Your task to perform on an android device: When is my next appointment? Image 0: 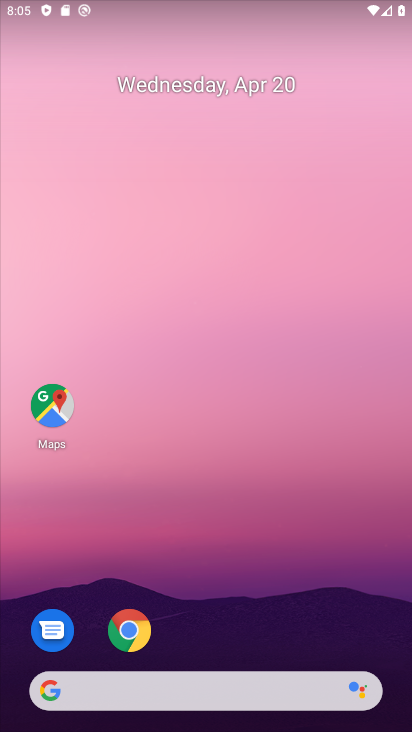
Step 0: press home button
Your task to perform on an android device: When is my next appointment? Image 1: 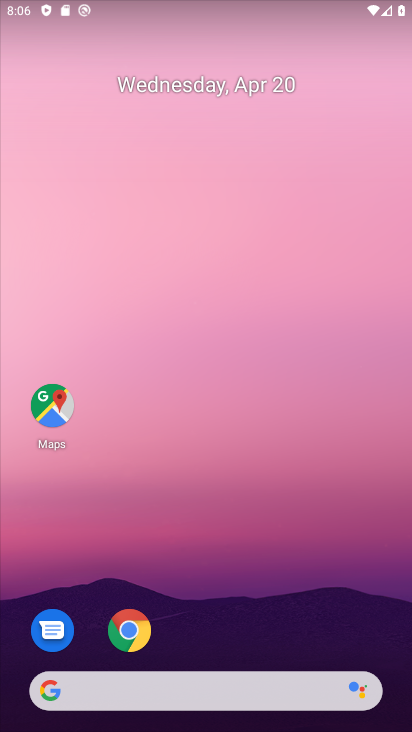
Step 1: drag from (234, 368) to (229, 100)
Your task to perform on an android device: When is my next appointment? Image 2: 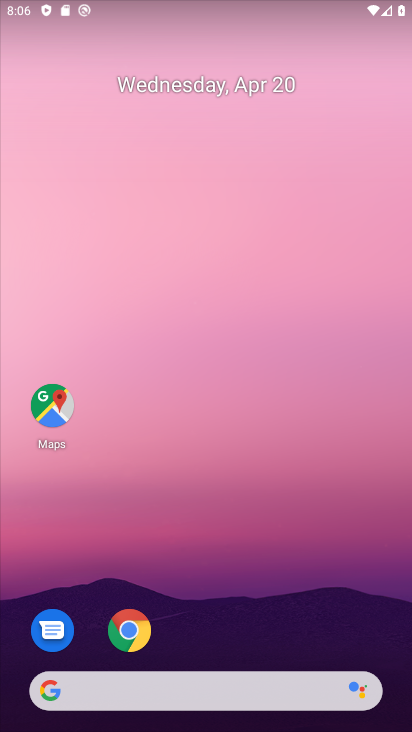
Step 2: drag from (273, 367) to (255, 90)
Your task to perform on an android device: When is my next appointment? Image 3: 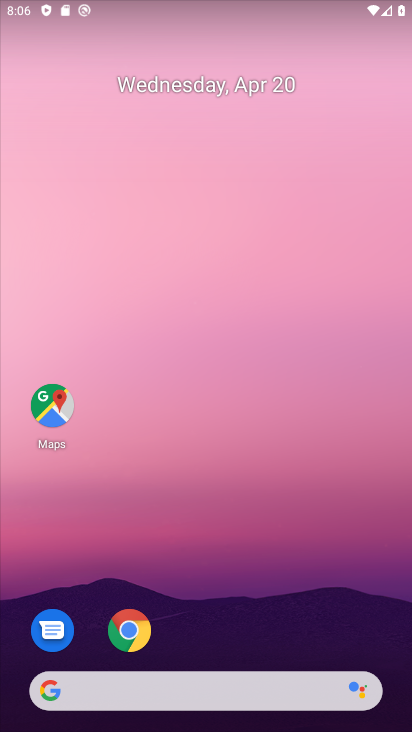
Step 3: drag from (256, 651) to (254, 82)
Your task to perform on an android device: When is my next appointment? Image 4: 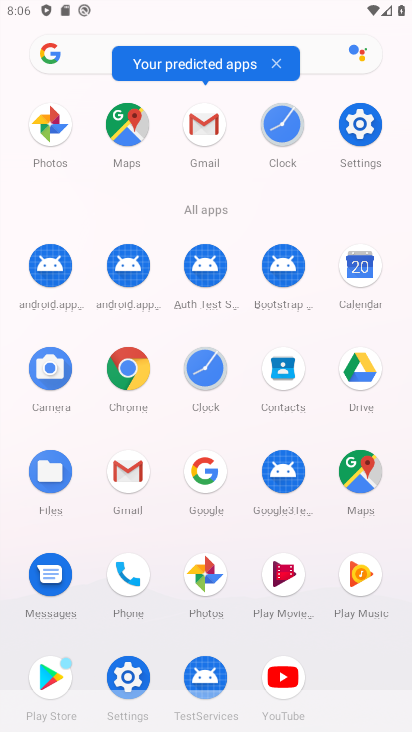
Step 4: click (356, 270)
Your task to perform on an android device: When is my next appointment? Image 5: 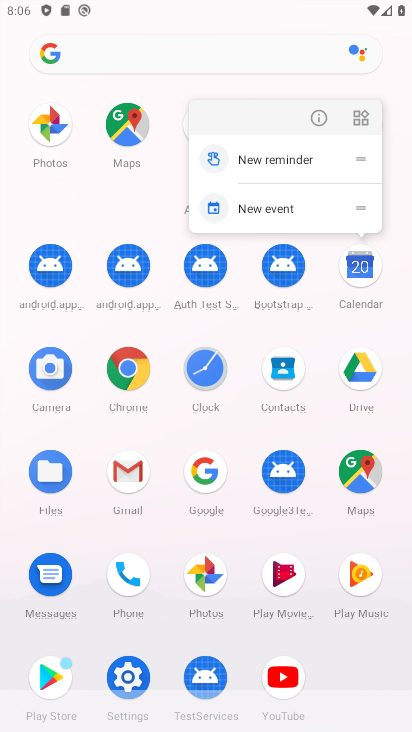
Step 5: click (358, 269)
Your task to perform on an android device: When is my next appointment? Image 6: 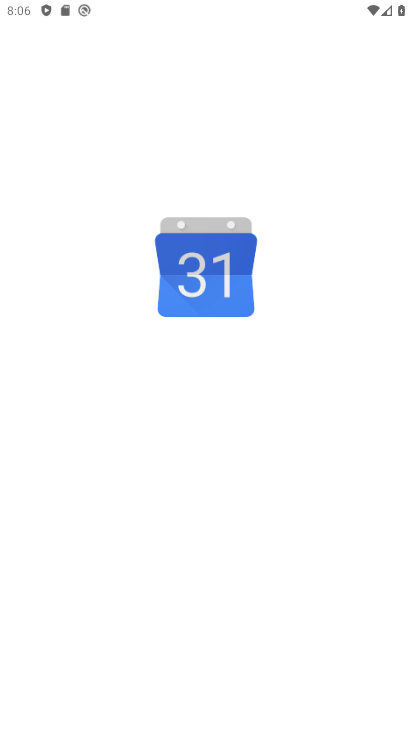
Step 6: click (358, 269)
Your task to perform on an android device: When is my next appointment? Image 7: 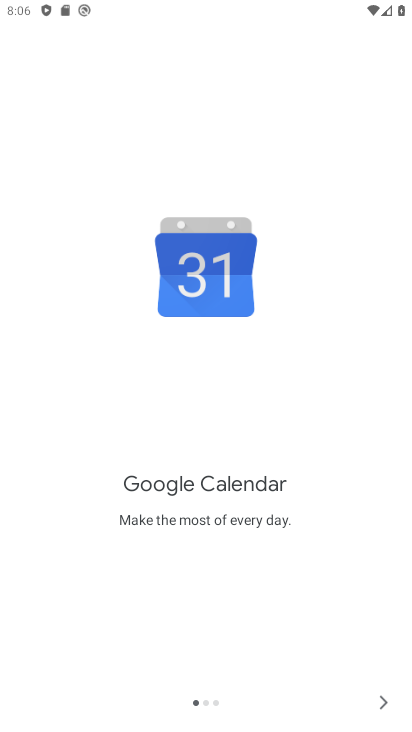
Step 7: click (380, 703)
Your task to perform on an android device: When is my next appointment? Image 8: 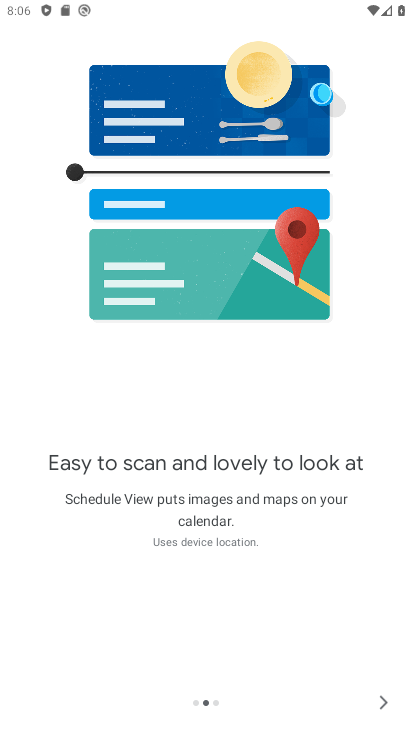
Step 8: click (385, 701)
Your task to perform on an android device: When is my next appointment? Image 9: 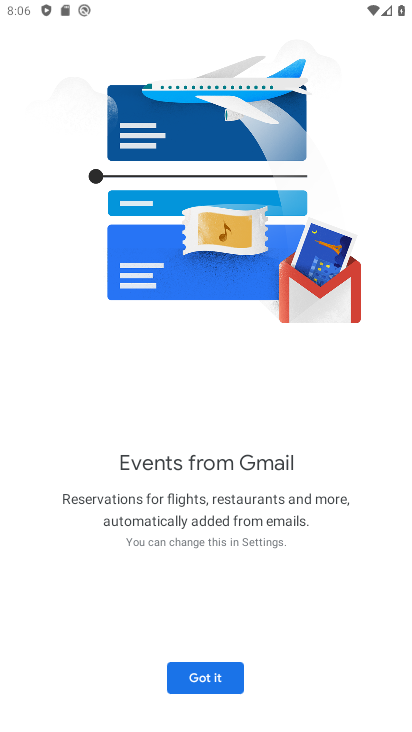
Step 9: click (213, 679)
Your task to perform on an android device: When is my next appointment? Image 10: 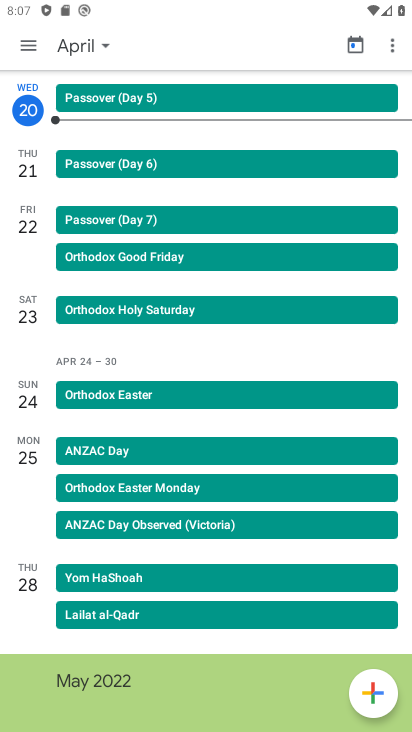
Step 10: click (29, 48)
Your task to perform on an android device: When is my next appointment? Image 11: 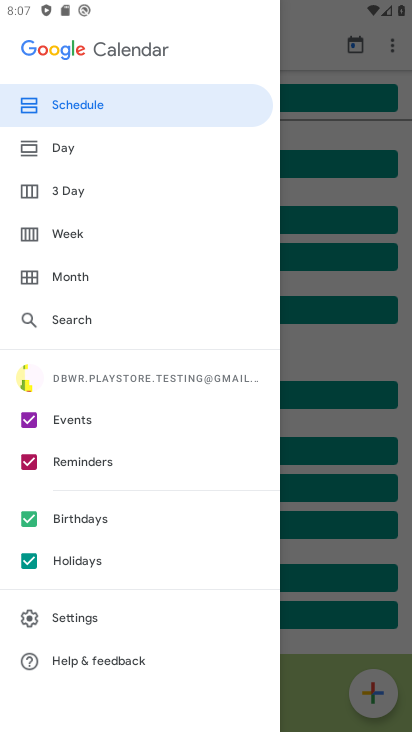
Step 11: click (328, 363)
Your task to perform on an android device: When is my next appointment? Image 12: 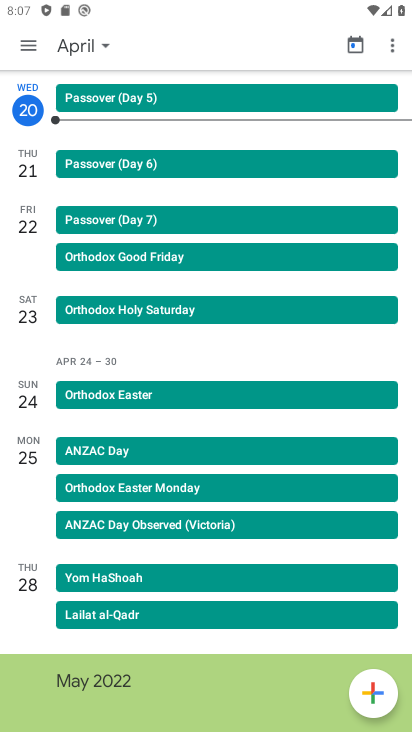
Step 12: drag from (191, 358) to (182, 278)
Your task to perform on an android device: When is my next appointment? Image 13: 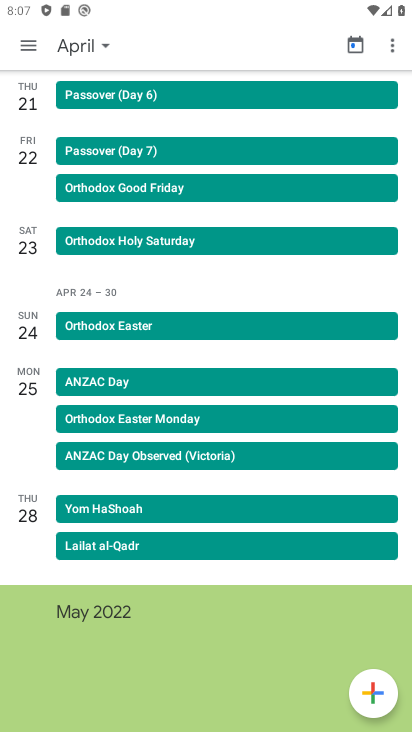
Step 13: click (140, 90)
Your task to perform on an android device: When is my next appointment? Image 14: 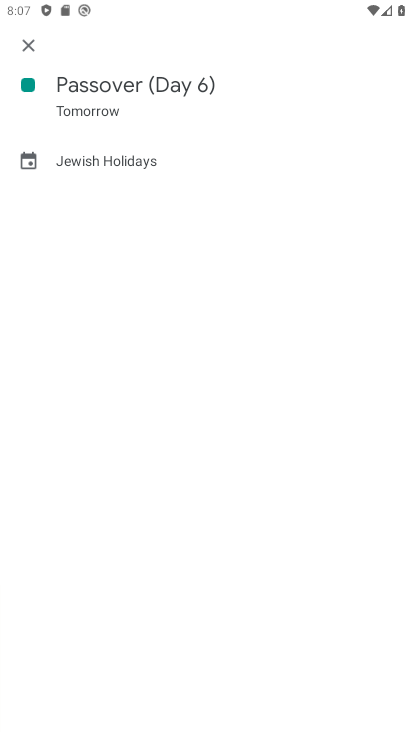
Step 14: click (31, 45)
Your task to perform on an android device: When is my next appointment? Image 15: 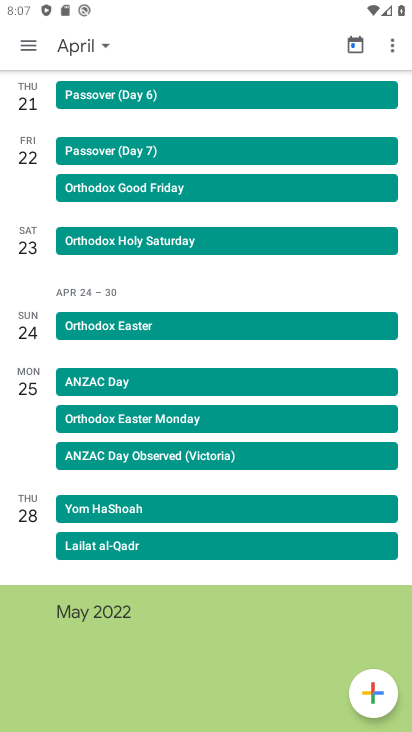
Step 15: click (32, 46)
Your task to perform on an android device: When is my next appointment? Image 16: 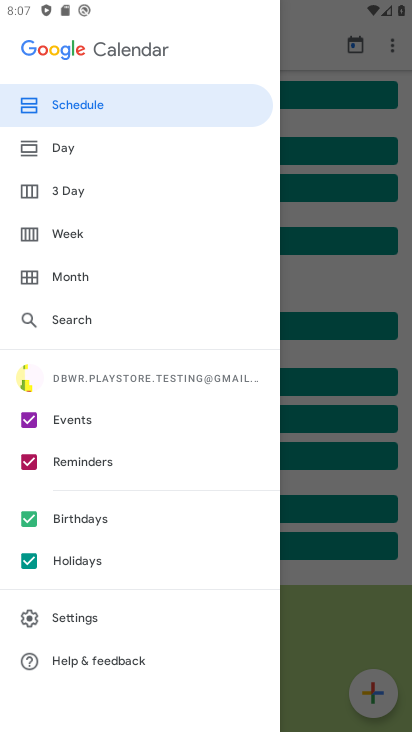
Step 16: click (48, 140)
Your task to perform on an android device: When is my next appointment? Image 17: 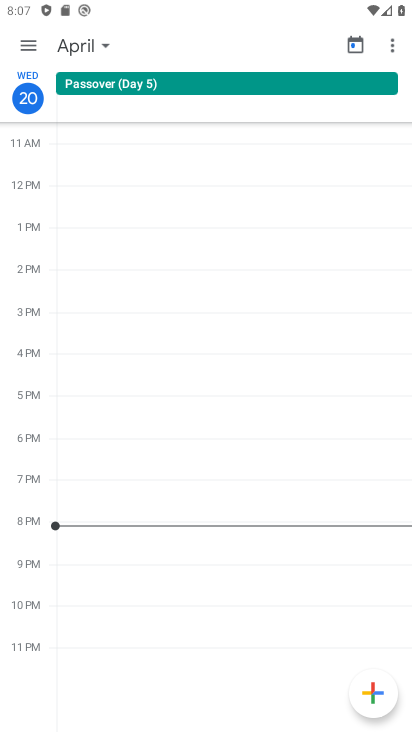
Step 17: click (99, 40)
Your task to perform on an android device: When is my next appointment? Image 18: 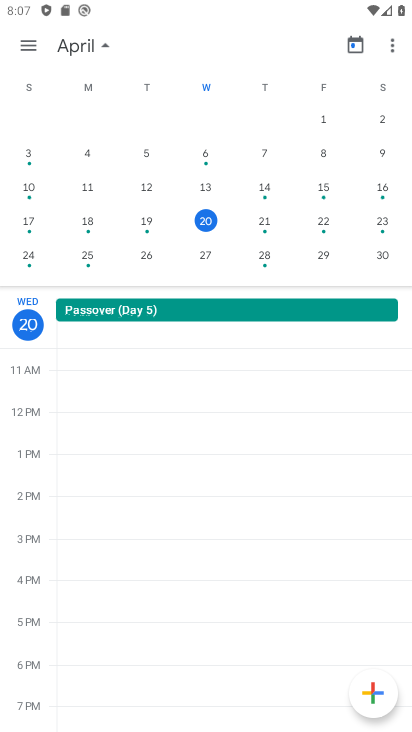
Step 18: click (263, 220)
Your task to perform on an android device: When is my next appointment? Image 19: 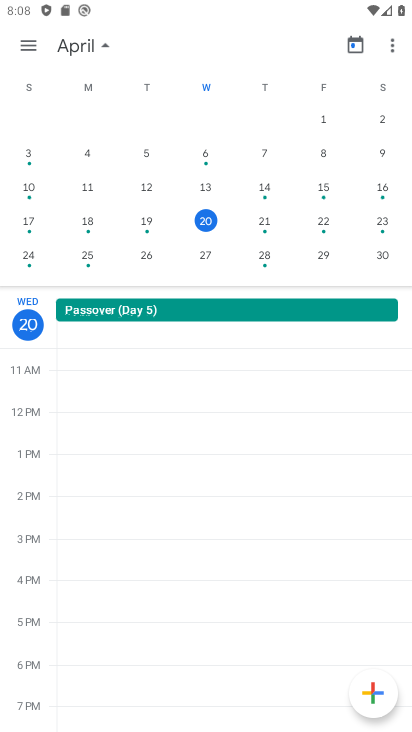
Step 19: click (263, 220)
Your task to perform on an android device: When is my next appointment? Image 20: 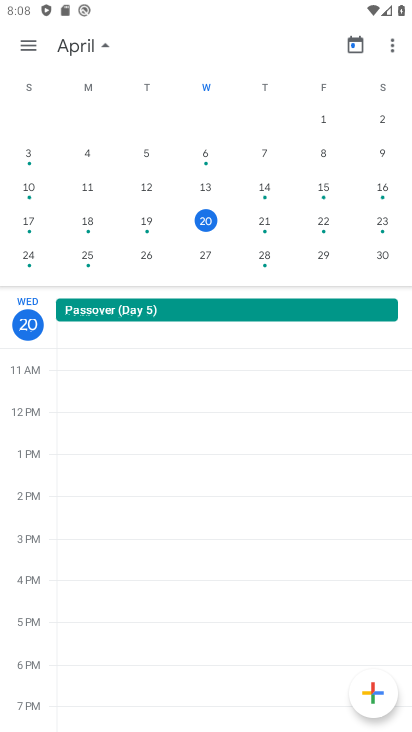
Step 20: click (262, 219)
Your task to perform on an android device: When is my next appointment? Image 21: 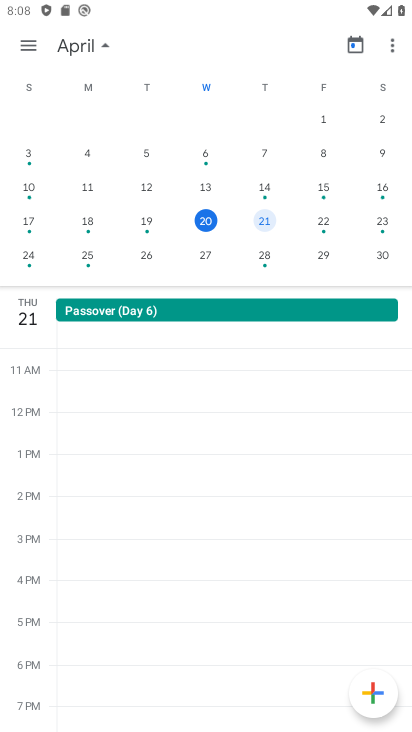
Step 21: task complete